Your task to perform on an android device: What's on my calendar tomorrow? Image 0: 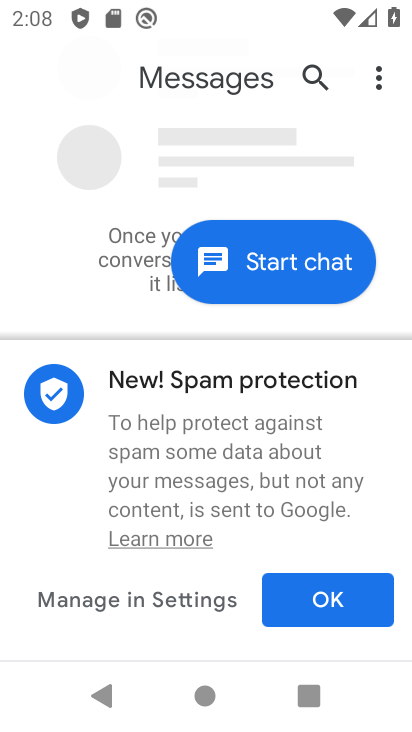
Step 0: press home button
Your task to perform on an android device: What's on my calendar tomorrow? Image 1: 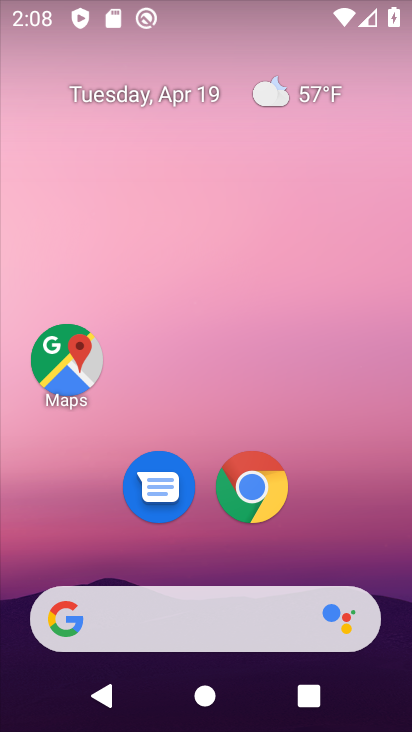
Step 1: click (144, 95)
Your task to perform on an android device: What's on my calendar tomorrow? Image 2: 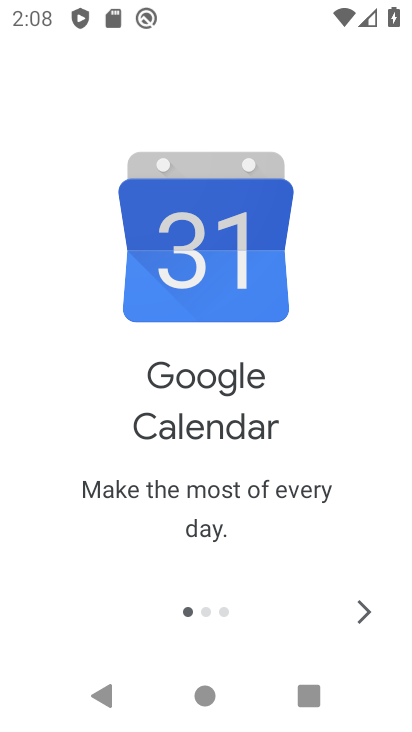
Step 2: click (370, 615)
Your task to perform on an android device: What's on my calendar tomorrow? Image 3: 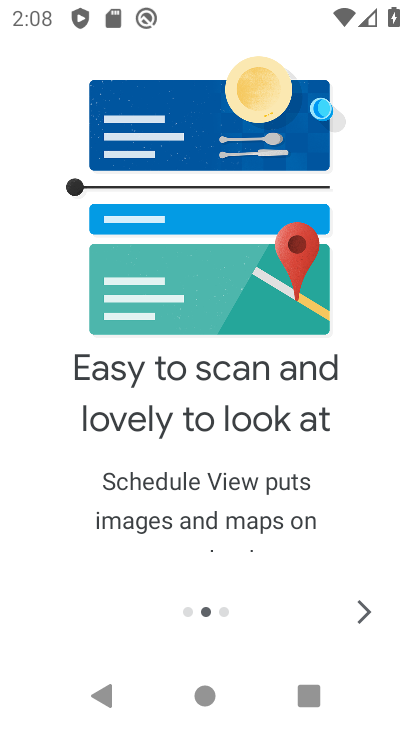
Step 3: click (370, 615)
Your task to perform on an android device: What's on my calendar tomorrow? Image 4: 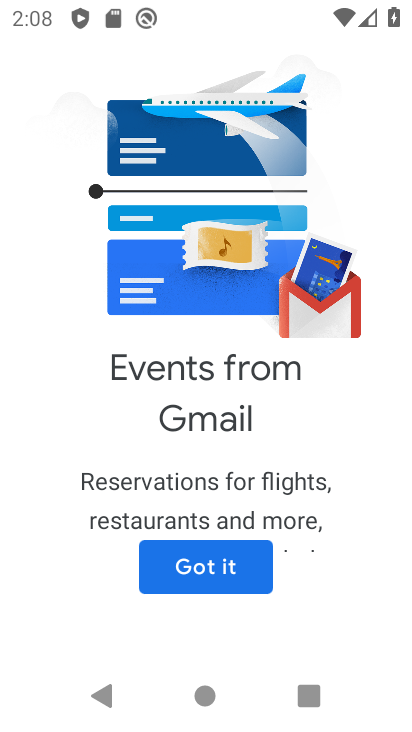
Step 4: click (169, 557)
Your task to perform on an android device: What's on my calendar tomorrow? Image 5: 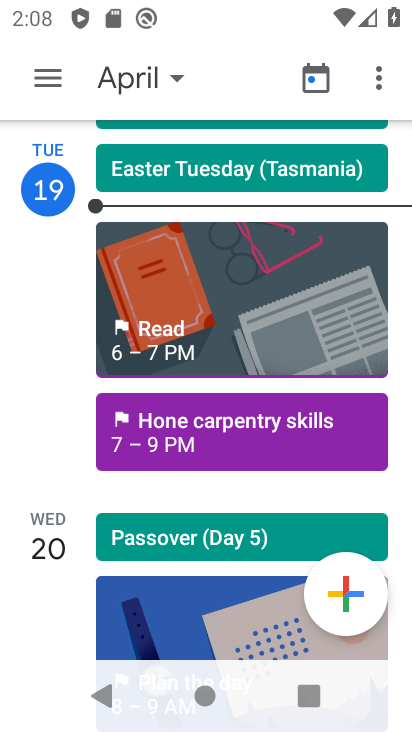
Step 5: click (178, 557)
Your task to perform on an android device: What's on my calendar tomorrow? Image 6: 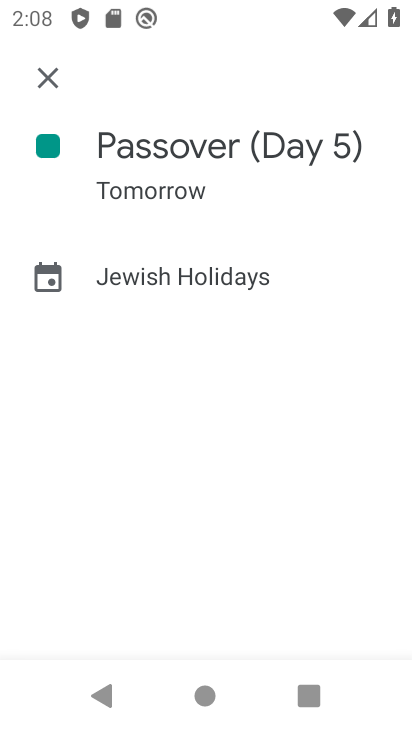
Step 6: task complete